Your task to perform on an android device: toggle show notifications on the lock screen Image 0: 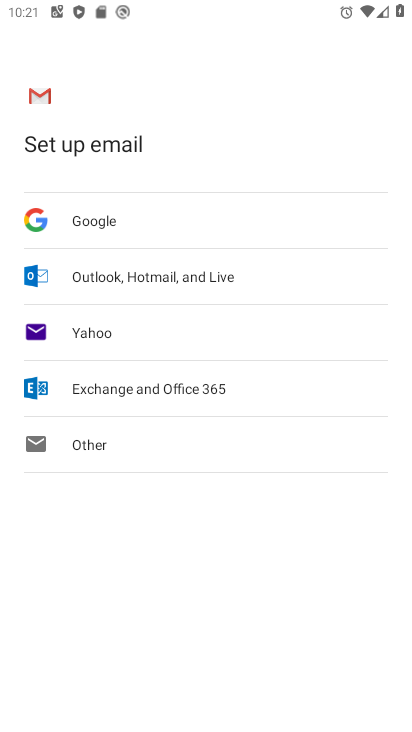
Step 0: press home button
Your task to perform on an android device: toggle show notifications on the lock screen Image 1: 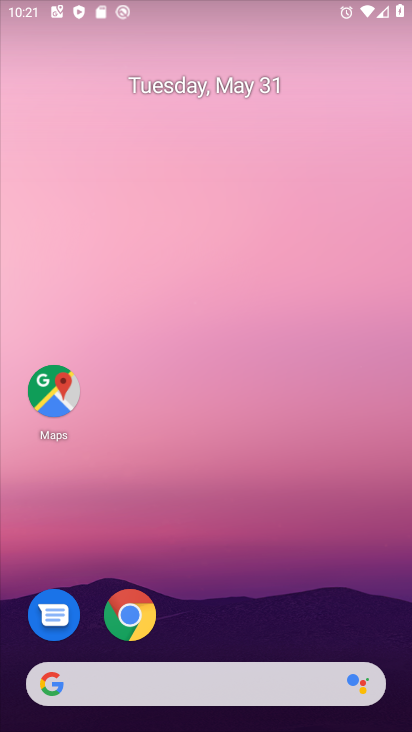
Step 1: drag from (262, 504) to (300, 9)
Your task to perform on an android device: toggle show notifications on the lock screen Image 2: 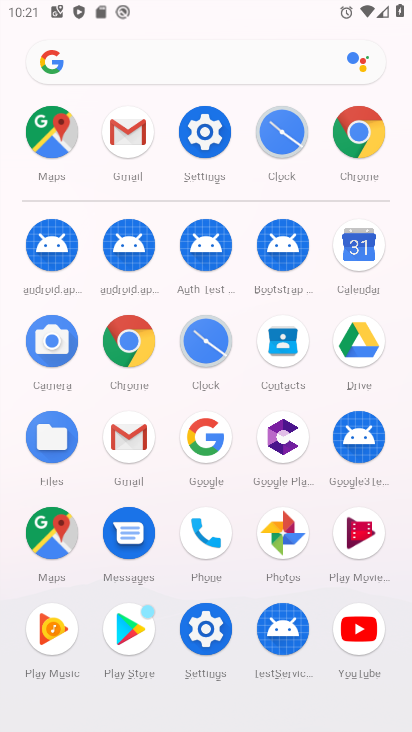
Step 2: click (205, 124)
Your task to perform on an android device: toggle show notifications on the lock screen Image 3: 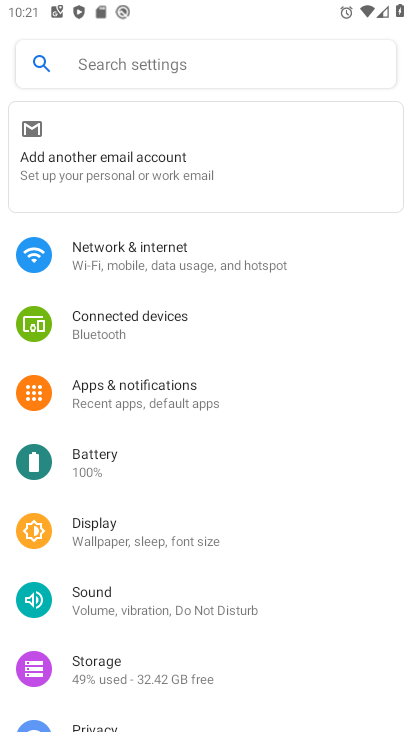
Step 3: click (152, 410)
Your task to perform on an android device: toggle show notifications on the lock screen Image 4: 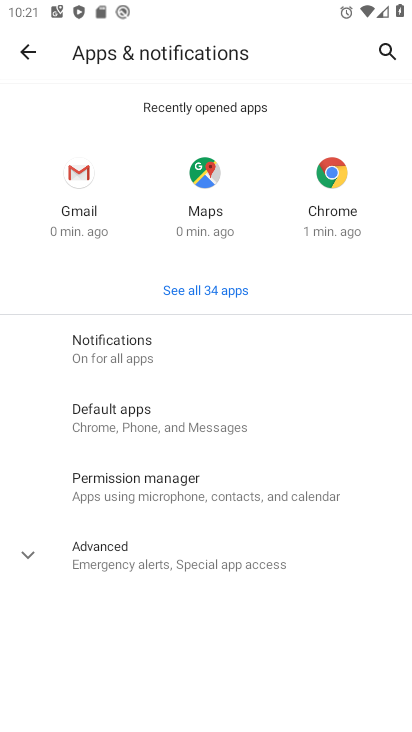
Step 4: click (132, 352)
Your task to perform on an android device: toggle show notifications on the lock screen Image 5: 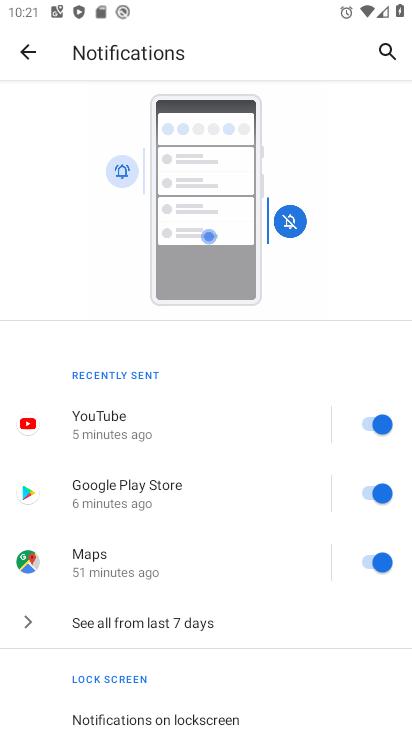
Step 5: drag from (211, 539) to (268, 235)
Your task to perform on an android device: toggle show notifications on the lock screen Image 6: 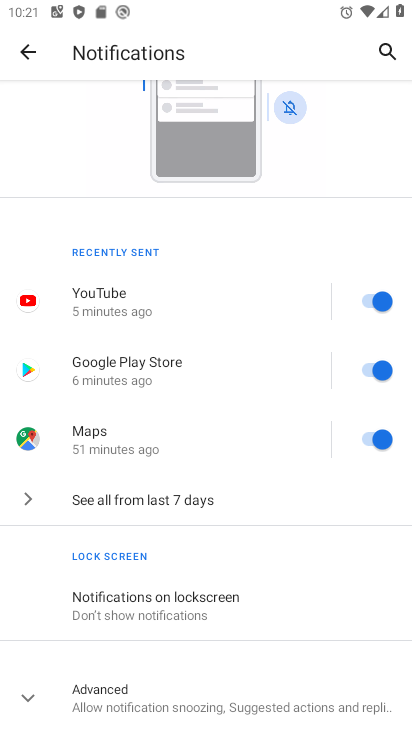
Step 6: drag from (240, 615) to (321, 134)
Your task to perform on an android device: toggle show notifications on the lock screen Image 7: 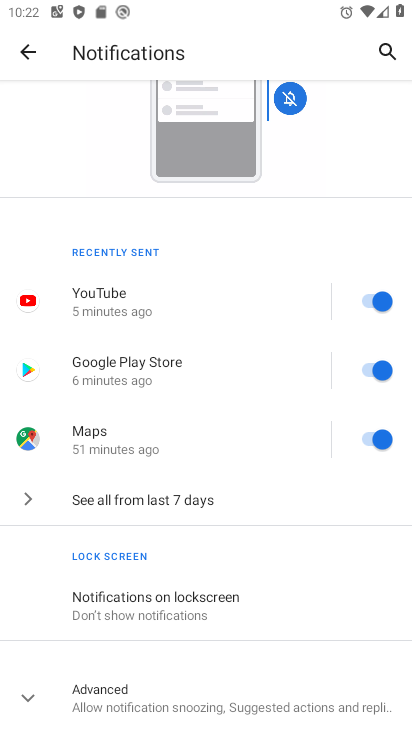
Step 7: click (178, 628)
Your task to perform on an android device: toggle show notifications on the lock screen Image 8: 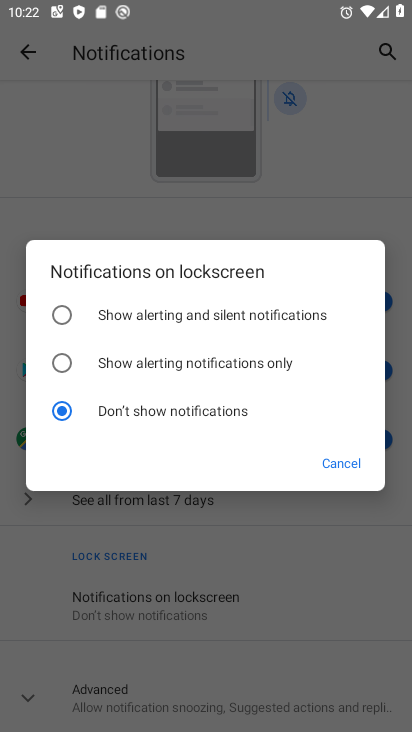
Step 8: click (136, 364)
Your task to perform on an android device: toggle show notifications on the lock screen Image 9: 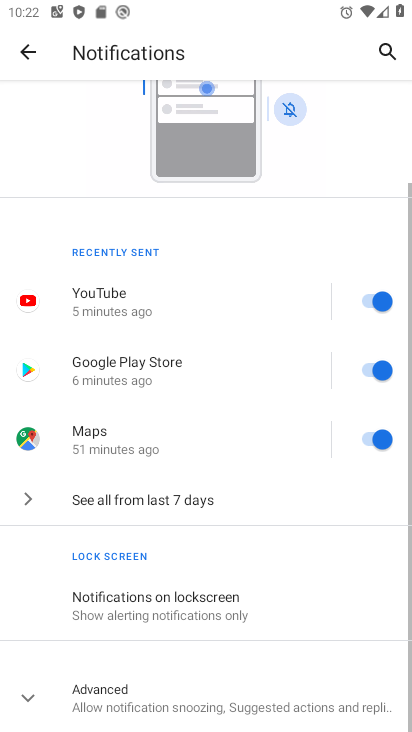
Step 9: task complete